Your task to perform on an android device: Open sound settings Image 0: 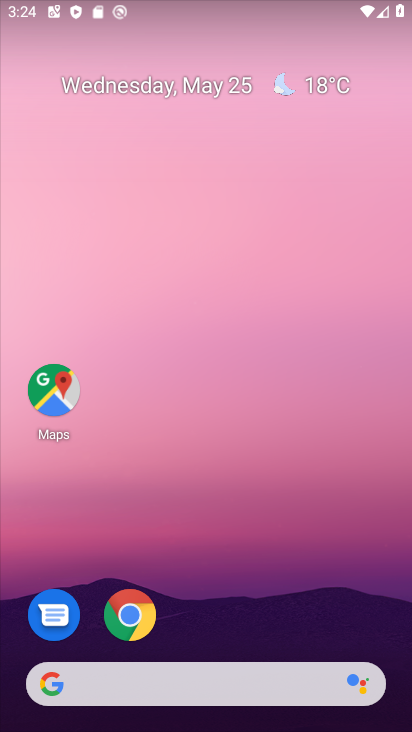
Step 0: drag from (285, 591) to (287, 246)
Your task to perform on an android device: Open sound settings Image 1: 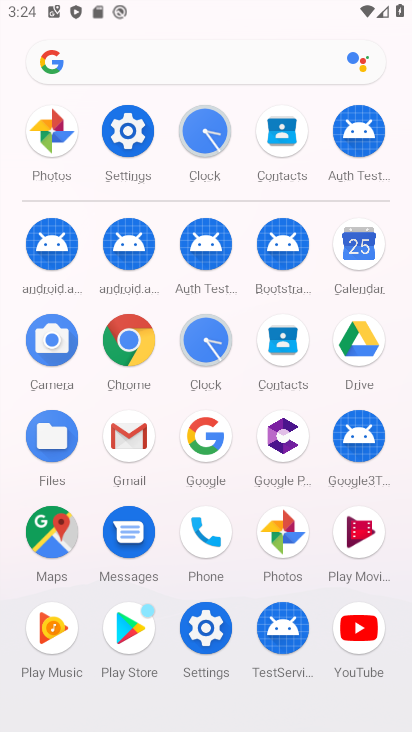
Step 1: drag from (259, 696) to (238, 148)
Your task to perform on an android device: Open sound settings Image 2: 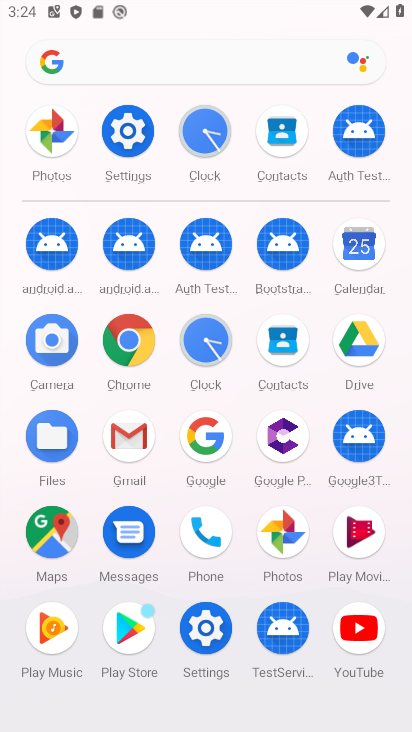
Step 2: click (194, 612)
Your task to perform on an android device: Open sound settings Image 3: 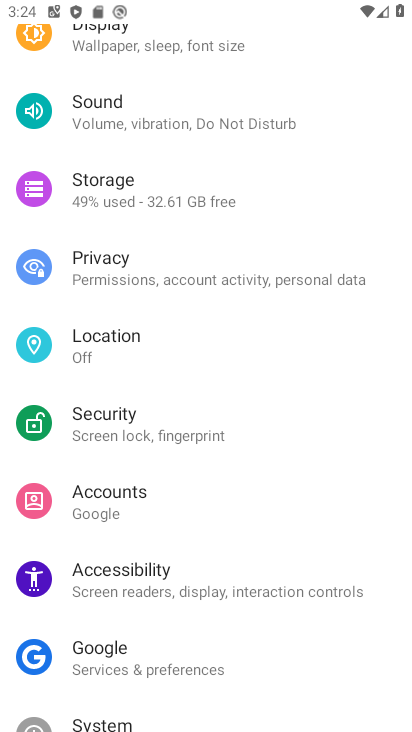
Step 3: click (117, 121)
Your task to perform on an android device: Open sound settings Image 4: 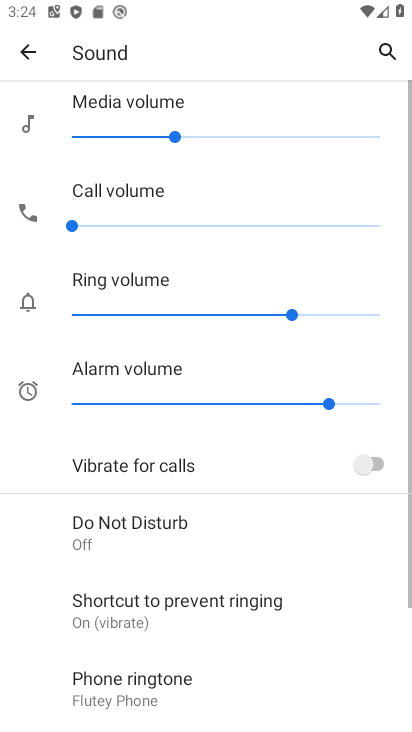
Step 4: task complete